Your task to perform on an android device: open app "Truecaller" (install if not already installed), go to login, and select forgot password Image 0: 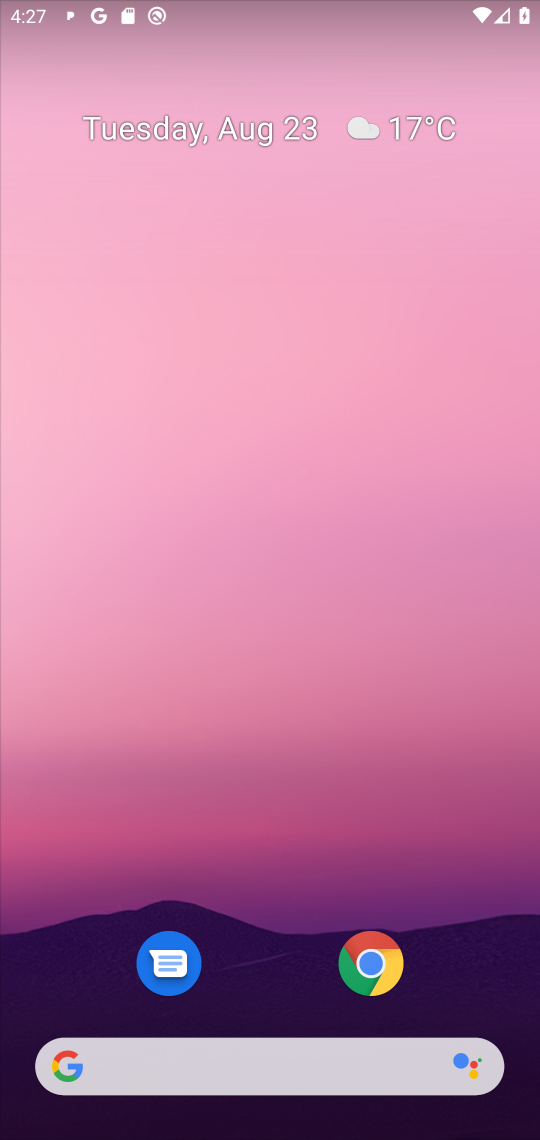
Step 0: press home button
Your task to perform on an android device: open app "Truecaller" (install if not already installed), go to login, and select forgot password Image 1: 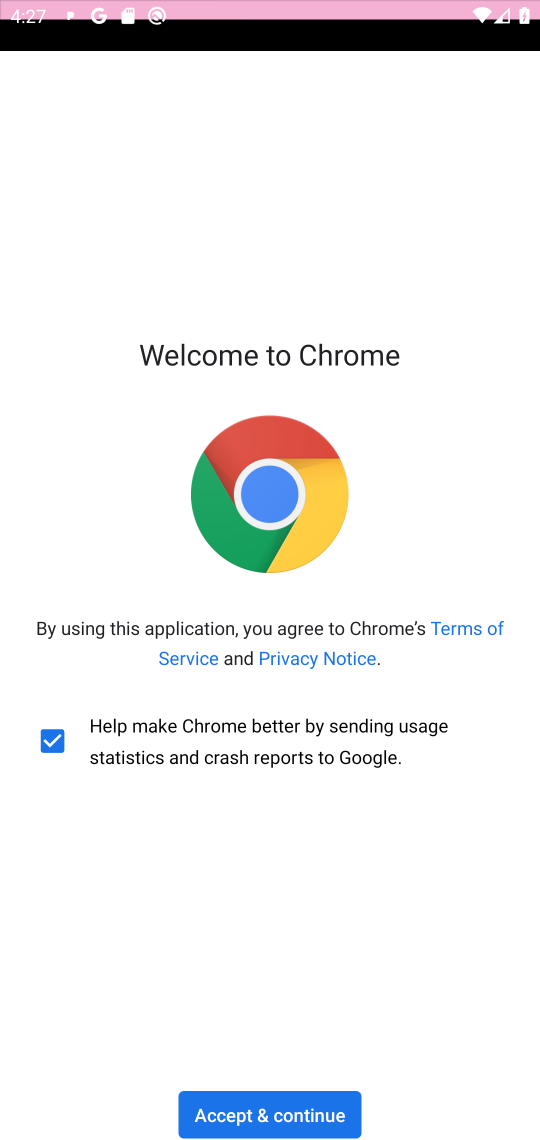
Step 1: drag from (280, 990) to (254, 555)
Your task to perform on an android device: open app "Truecaller" (install if not already installed), go to login, and select forgot password Image 2: 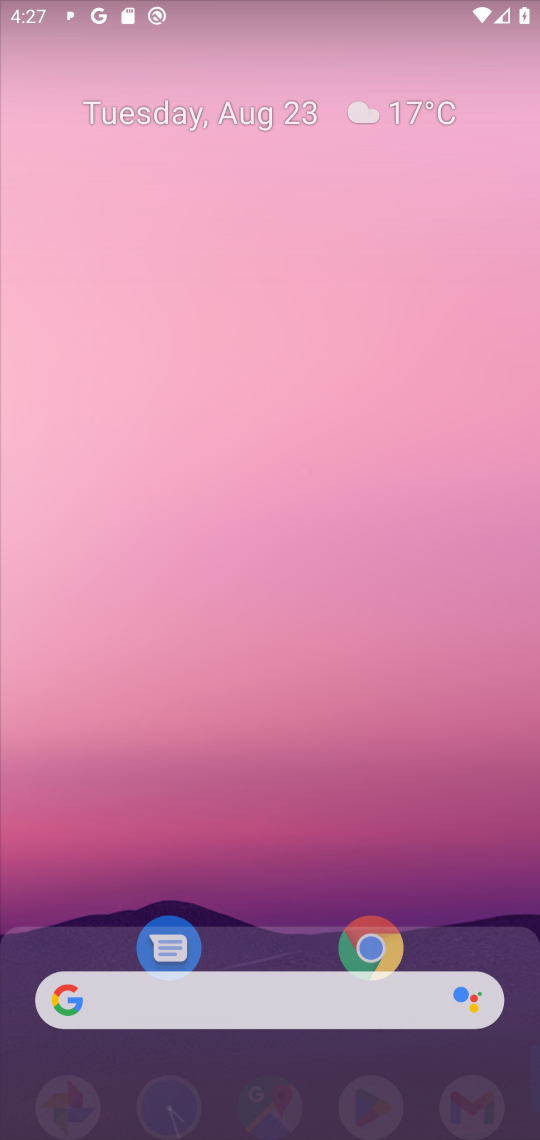
Step 2: press home button
Your task to perform on an android device: open app "Truecaller" (install if not already installed), go to login, and select forgot password Image 3: 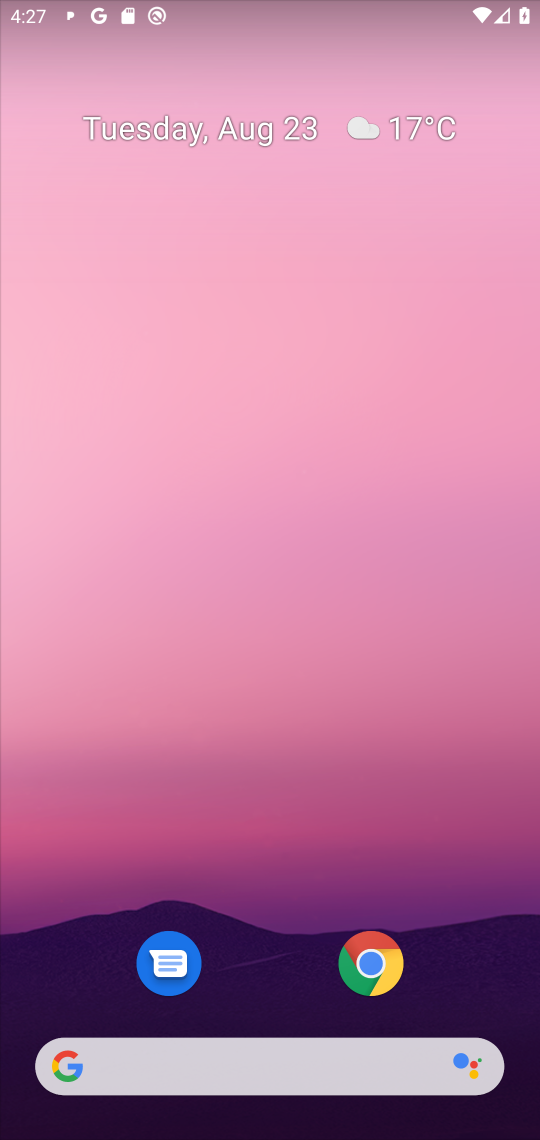
Step 3: drag from (283, 991) to (252, 166)
Your task to perform on an android device: open app "Truecaller" (install if not already installed), go to login, and select forgot password Image 4: 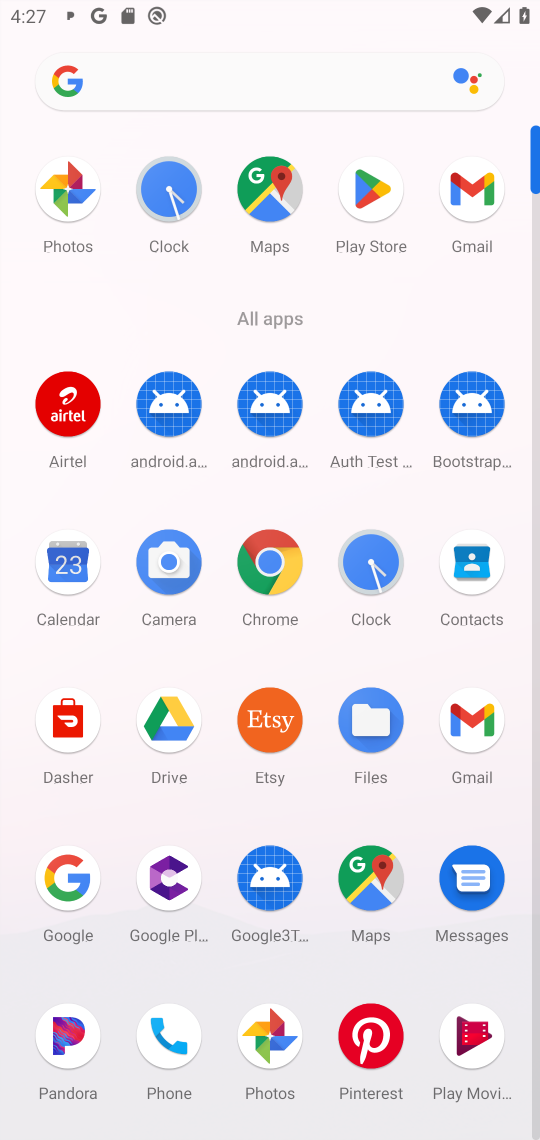
Step 4: click (364, 180)
Your task to perform on an android device: open app "Truecaller" (install if not already installed), go to login, and select forgot password Image 5: 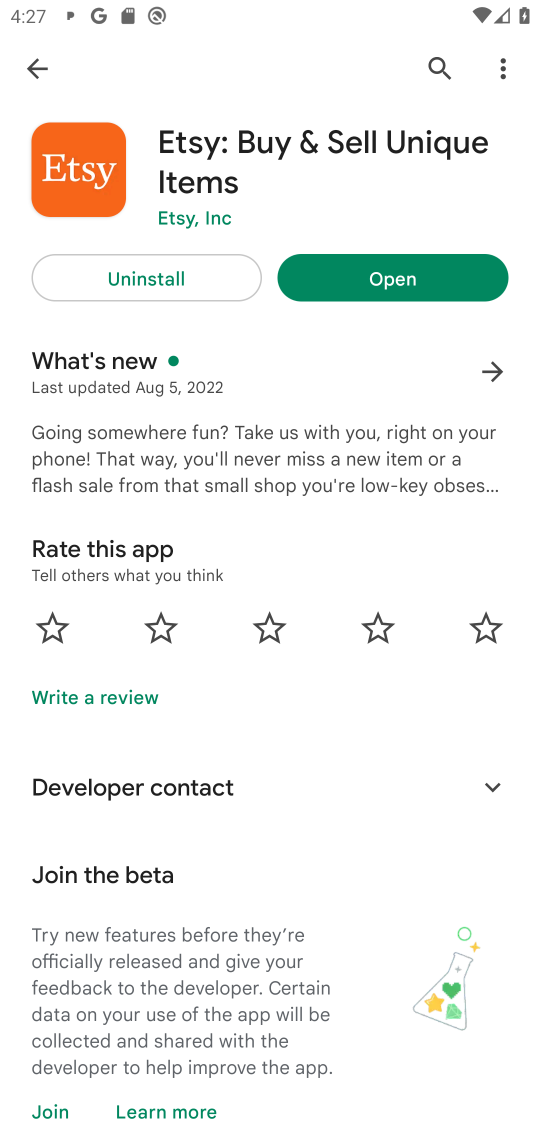
Step 5: click (446, 70)
Your task to perform on an android device: open app "Truecaller" (install if not already installed), go to login, and select forgot password Image 6: 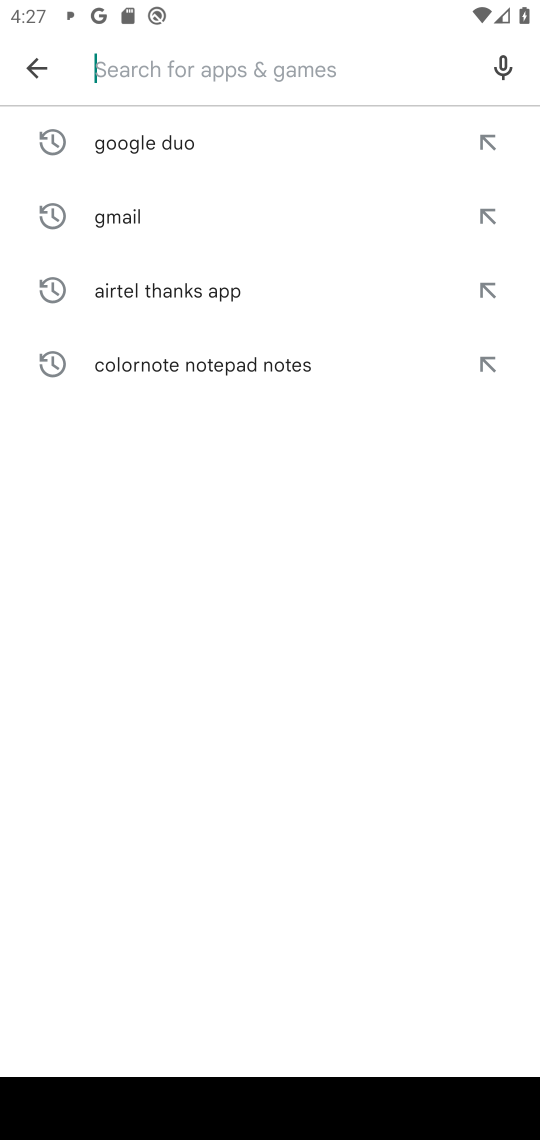
Step 6: click (167, 68)
Your task to perform on an android device: open app "Truecaller" (install if not already installed), go to login, and select forgot password Image 7: 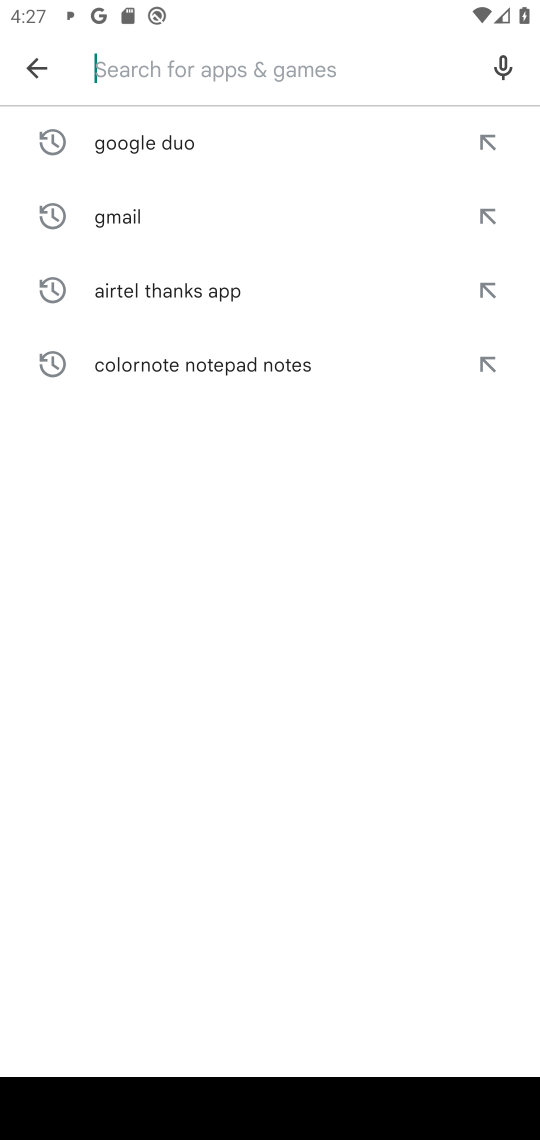
Step 7: type "Truecaller"
Your task to perform on an android device: open app "Truecaller" (install if not already installed), go to login, and select forgot password Image 8: 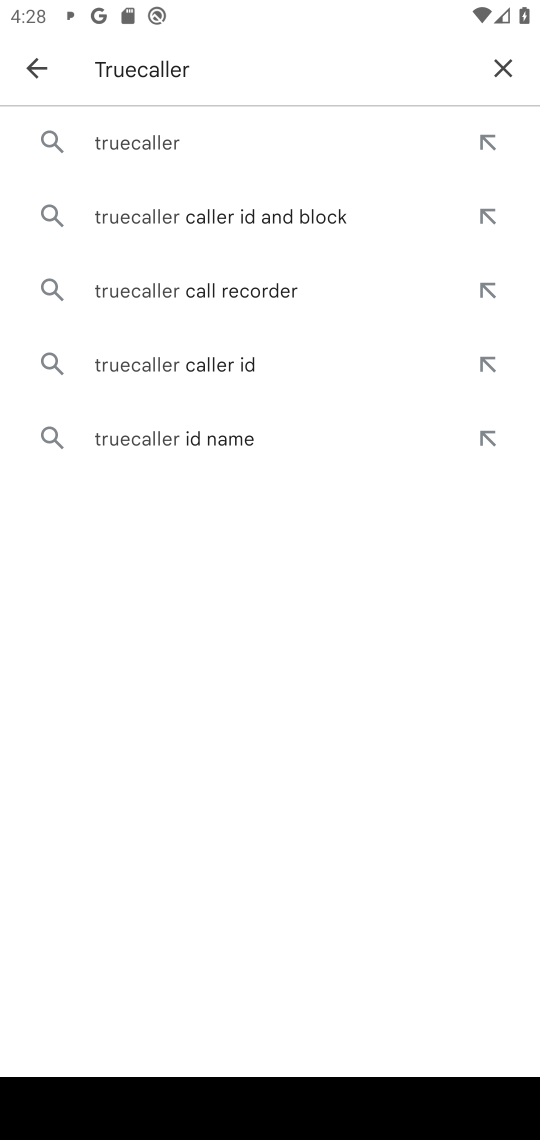
Step 8: click (162, 142)
Your task to perform on an android device: open app "Truecaller" (install if not already installed), go to login, and select forgot password Image 9: 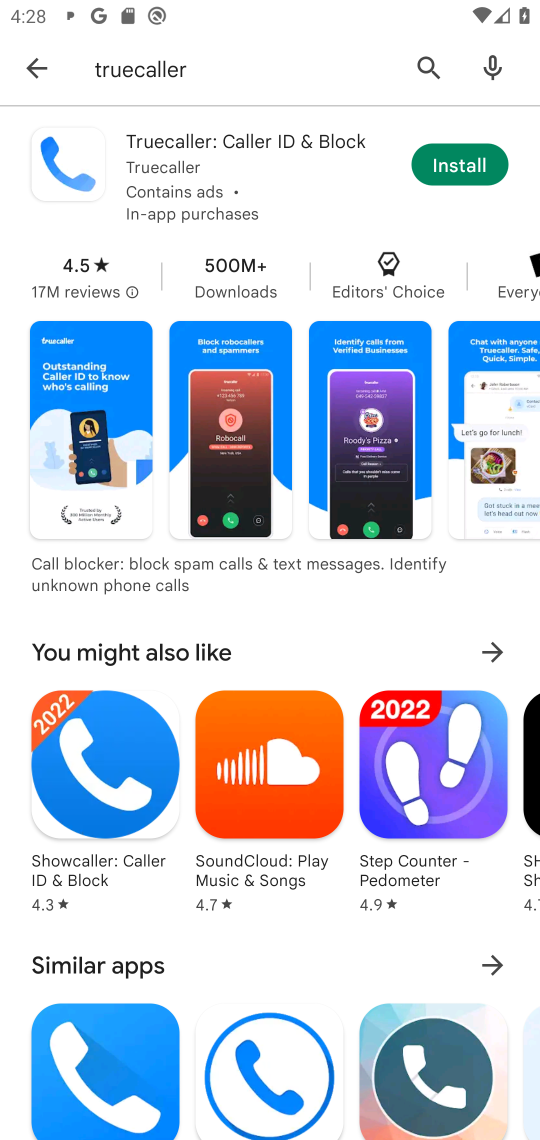
Step 9: click (458, 157)
Your task to perform on an android device: open app "Truecaller" (install if not already installed), go to login, and select forgot password Image 10: 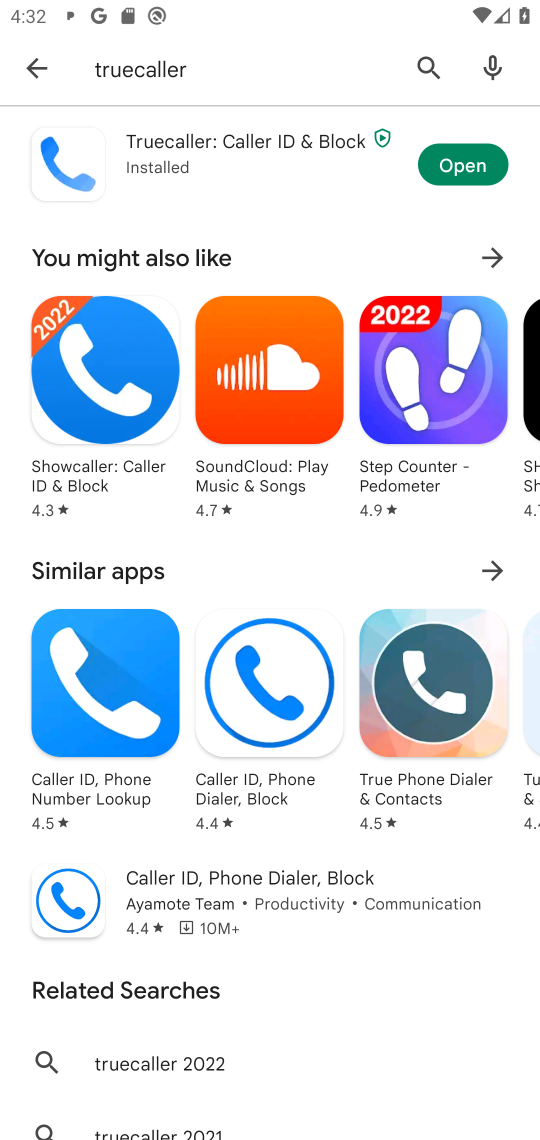
Step 10: click (482, 157)
Your task to perform on an android device: open app "Truecaller" (install if not already installed), go to login, and select forgot password Image 11: 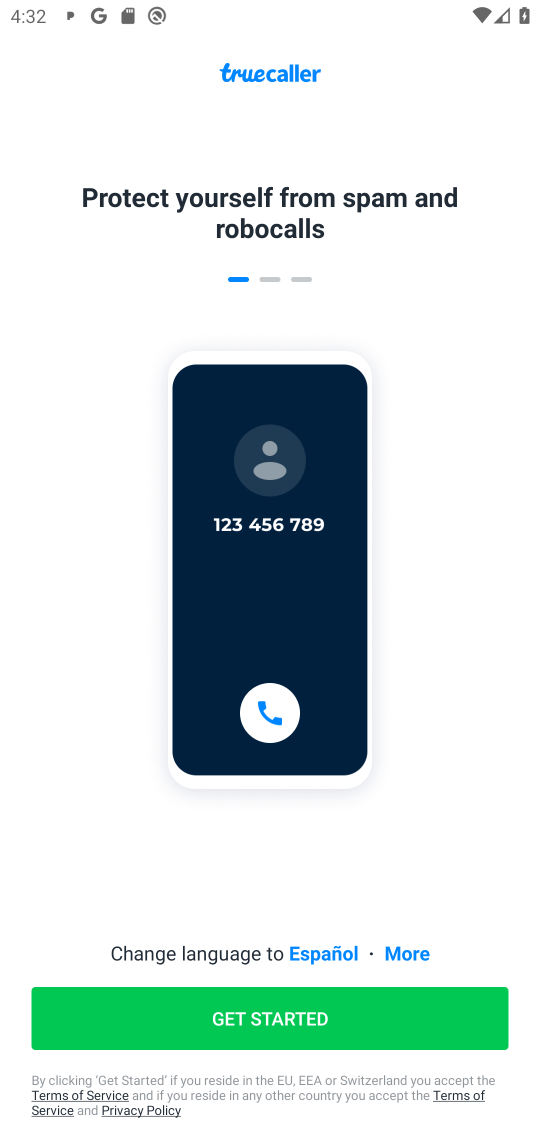
Step 11: click (277, 1023)
Your task to perform on an android device: open app "Truecaller" (install if not already installed), go to login, and select forgot password Image 12: 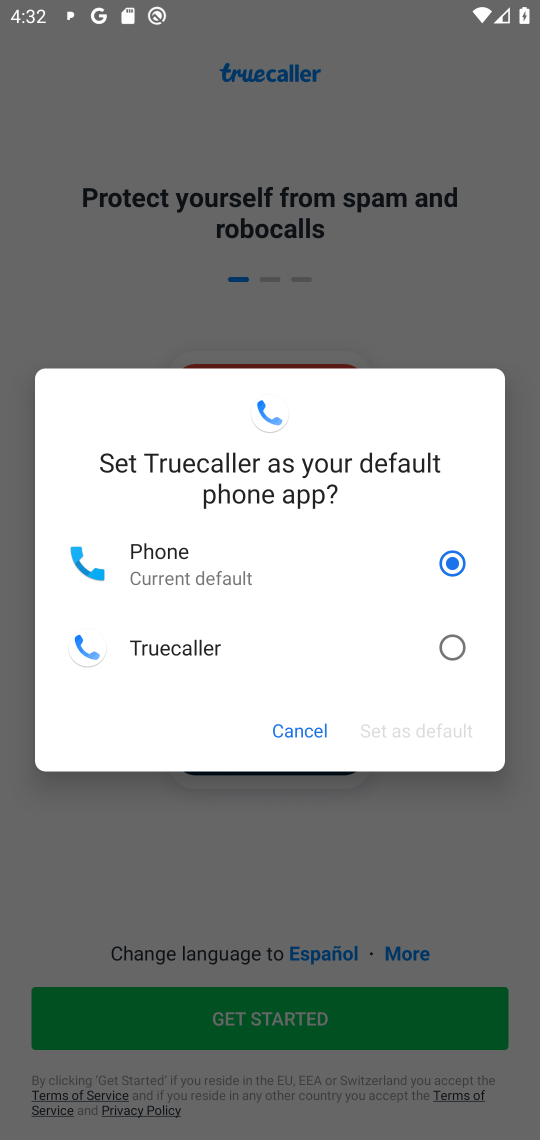
Step 12: click (441, 647)
Your task to perform on an android device: open app "Truecaller" (install if not already installed), go to login, and select forgot password Image 13: 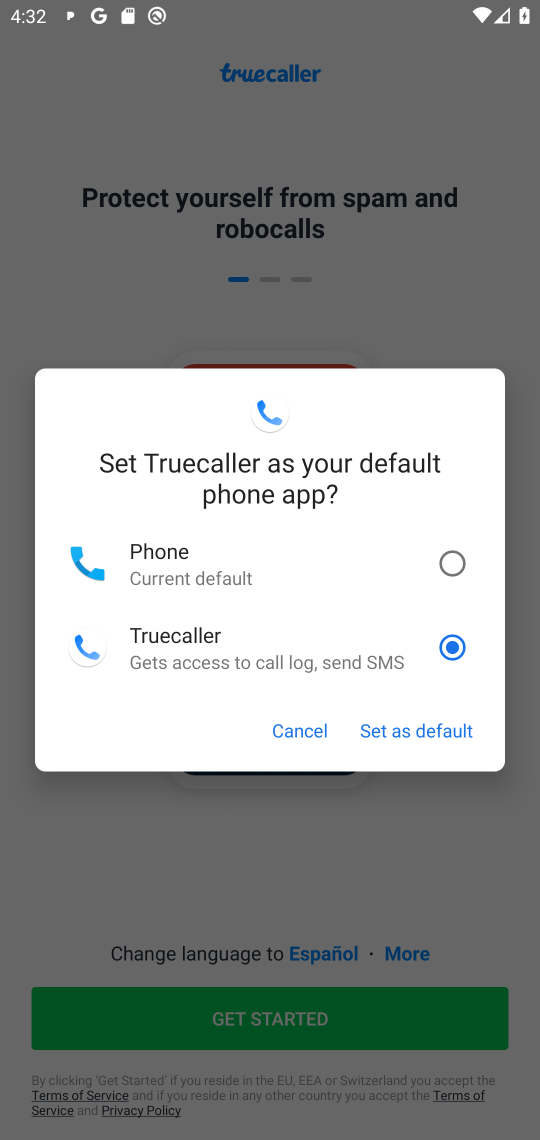
Step 13: click (422, 731)
Your task to perform on an android device: open app "Truecaller" (install if not already installed), go to login, and select forgot password Image 14: 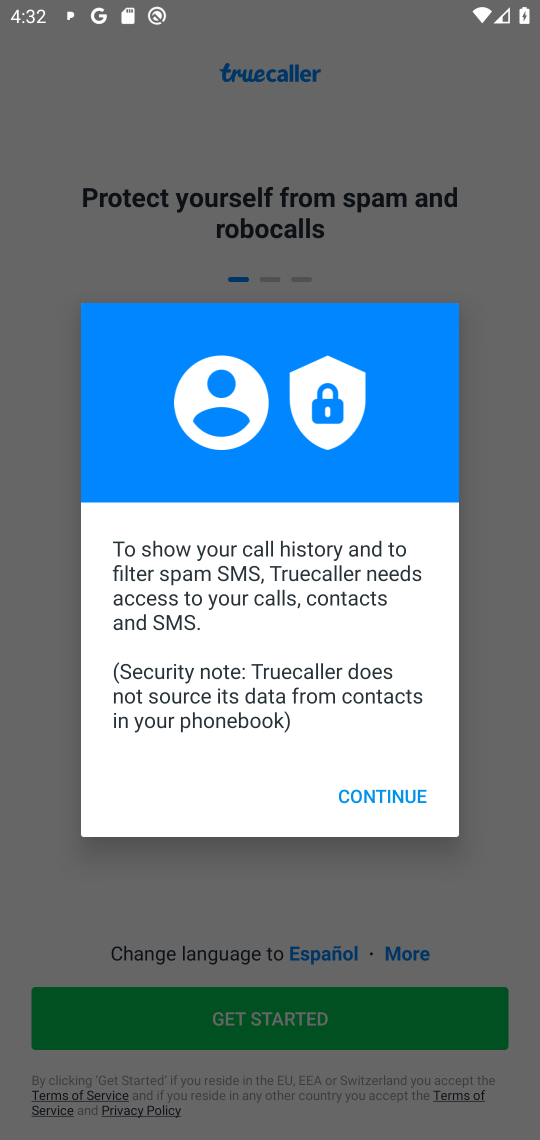
Step 14: click (398, 795)
Your task to perform on an android device: open app "Truecaller" (install if not already installed), go to login, and select forgot password Image 15: 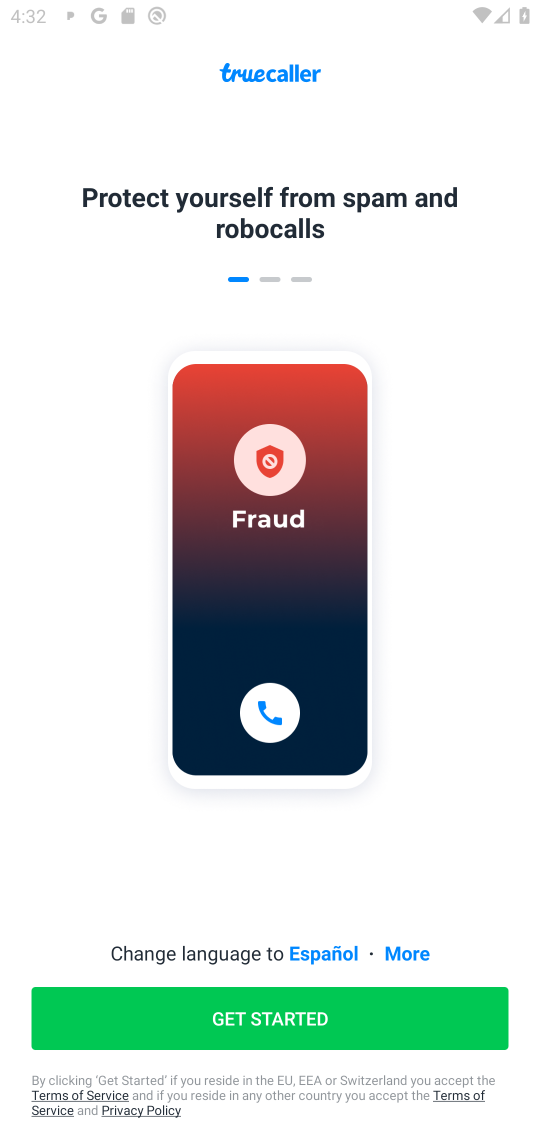
Step 15: click (270, 1026)
Your task to perform on an android device: open app "Truecaller" (install if not already installed), go to login, and select forgot password Image 16: 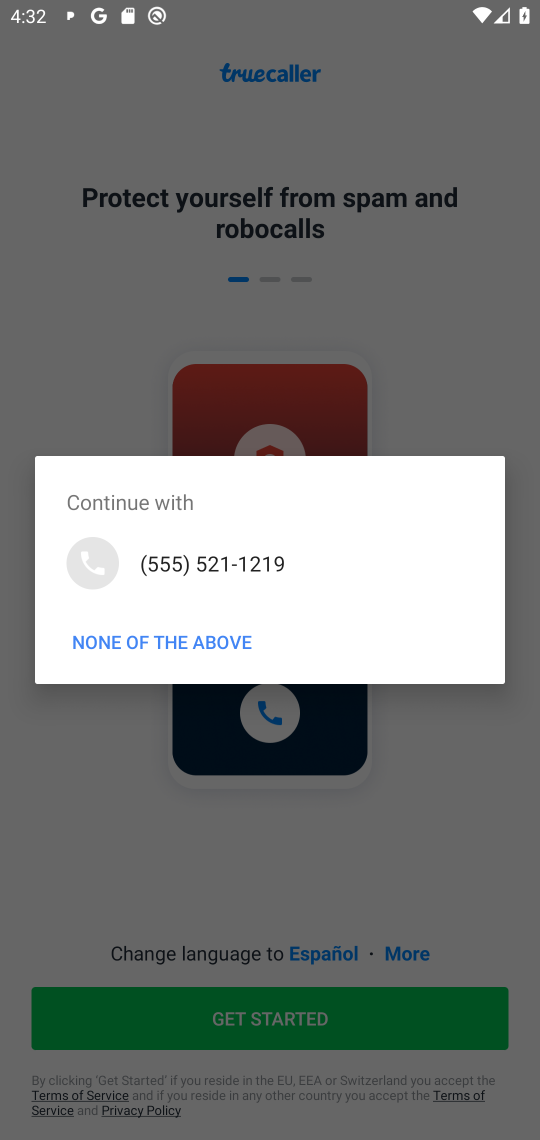
Step 16: click (157, 645)
Your task to perform on an android device: open app "Truecaller" (install if not already installed), go to login, and select forgot password Image 17: 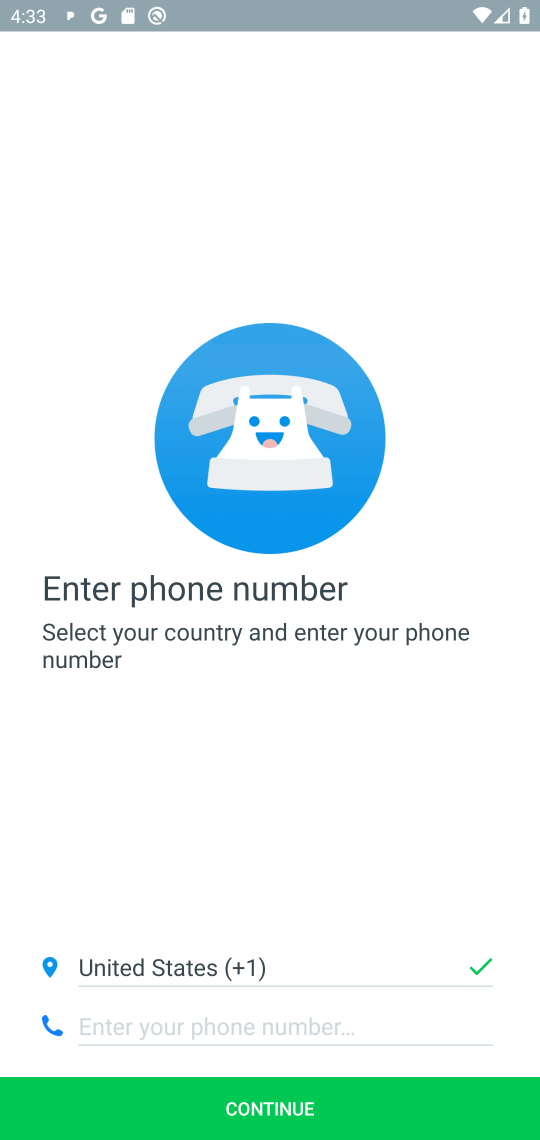
Step 17: task complete